Your task to perform on an android device: Empty the shopping cart on target. Search for "bose soundsport free" on target, select the first entry, add it to the cart, then select checkout. Image 0: 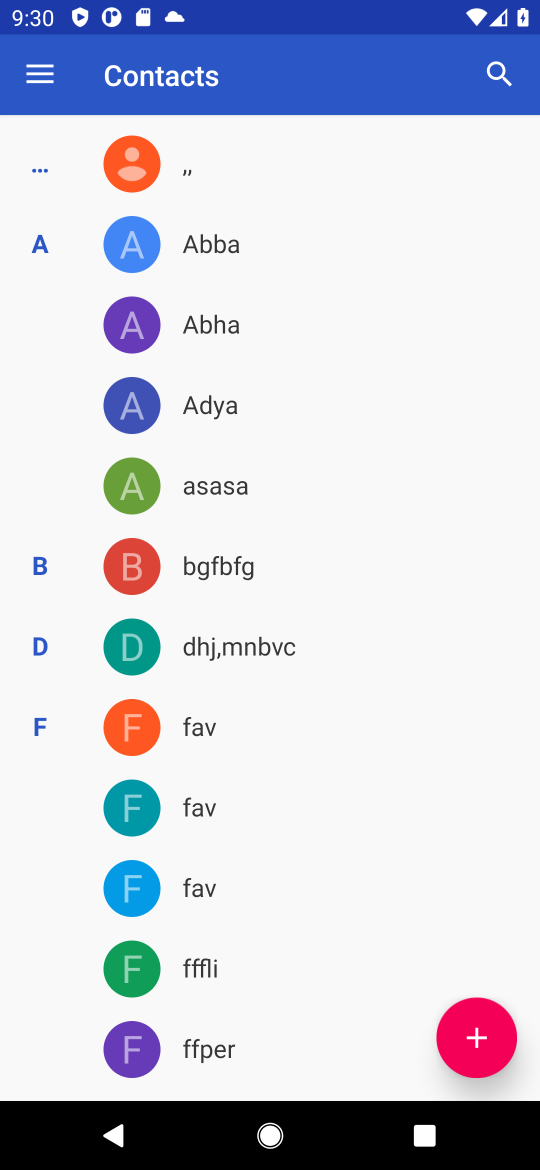
Step 0: press home button
Your task to perform on an android device: Empty the shopping cart on target. Search for "bose soundsport free" on target, select the first entry, add it to the cart, then select checkout. Image 1: 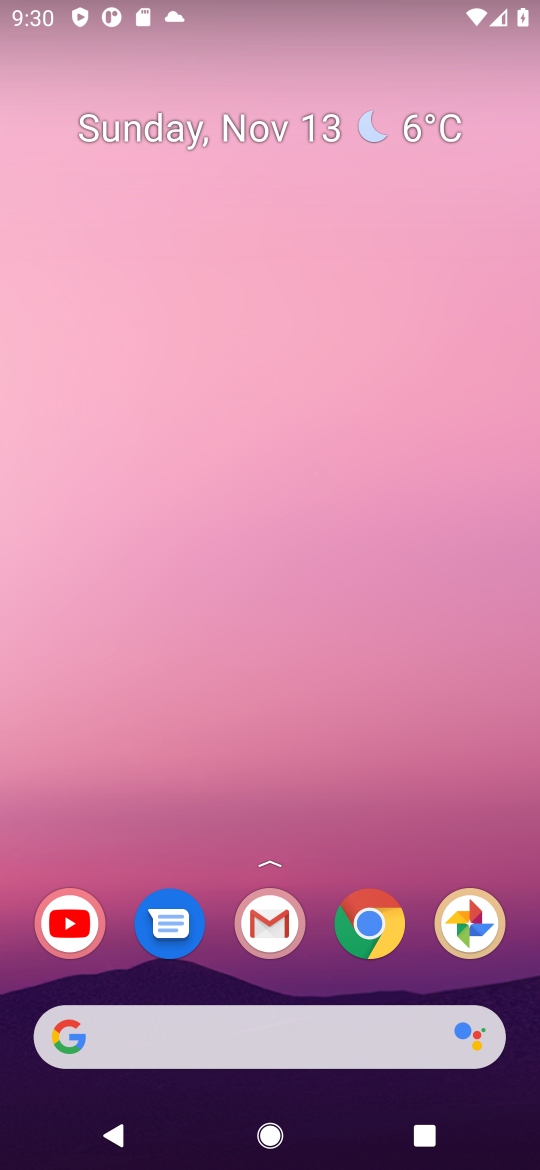
Step 1: click (392, 923)
Your task to perform on an android device: Empty the shopping cart on target. Search for "bose soundsport free" on target, select the first entry, add it to the cart, then select checkout. Image 2: 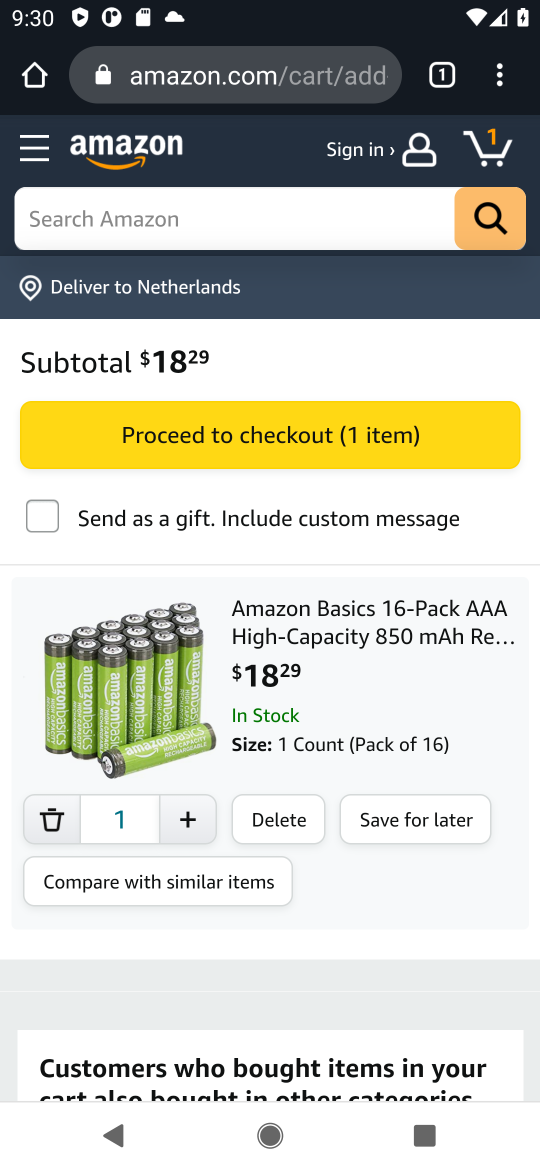
Step 2: click (345, 75)
Your task to perform on an android device: Empty the shopping cart on target. Search for "bose soundsport free" on target, select the first entry, add it to the cart, then select checkout. Image 3: 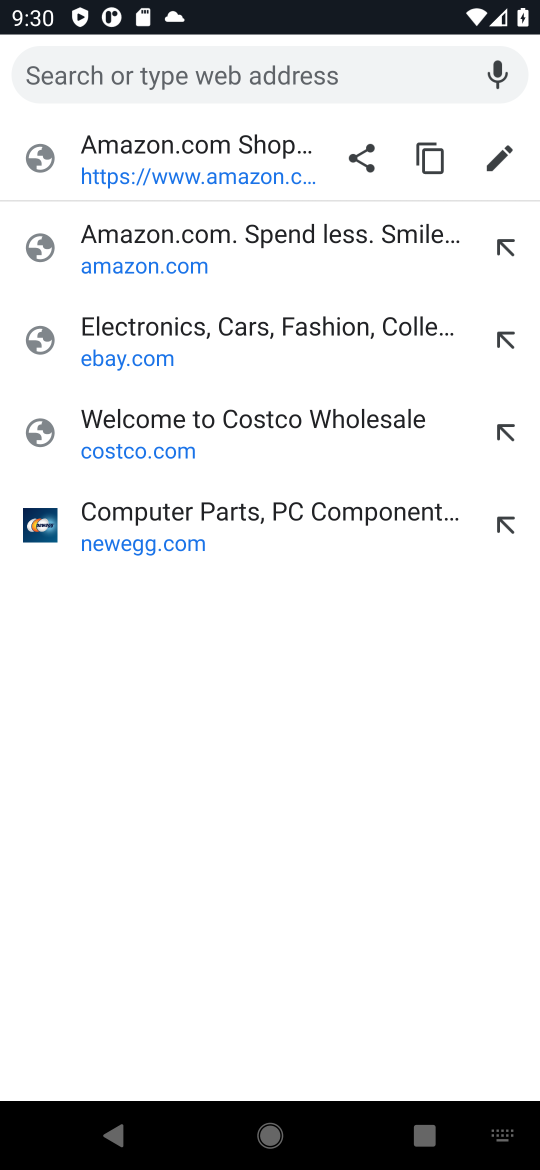
Step 3: type "target"
Your task to perform on an android device: Empty the shopping cart on target. Search for "bose soundsport free" on target, select the first entry, add it to the cart, then select checkout. Image 4: 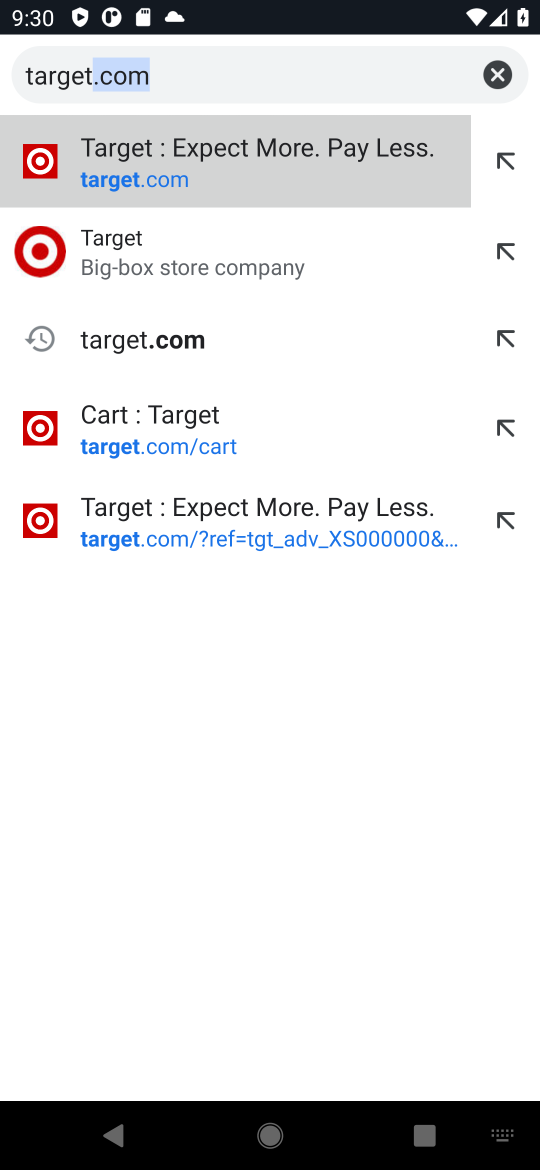
Step 4: press enter
Your task to perform on an android device: Empty the shopping cart on target. Search for "bose soundsport free" on target, select the first entry, add it to the cart, then select checkout. Image 5: 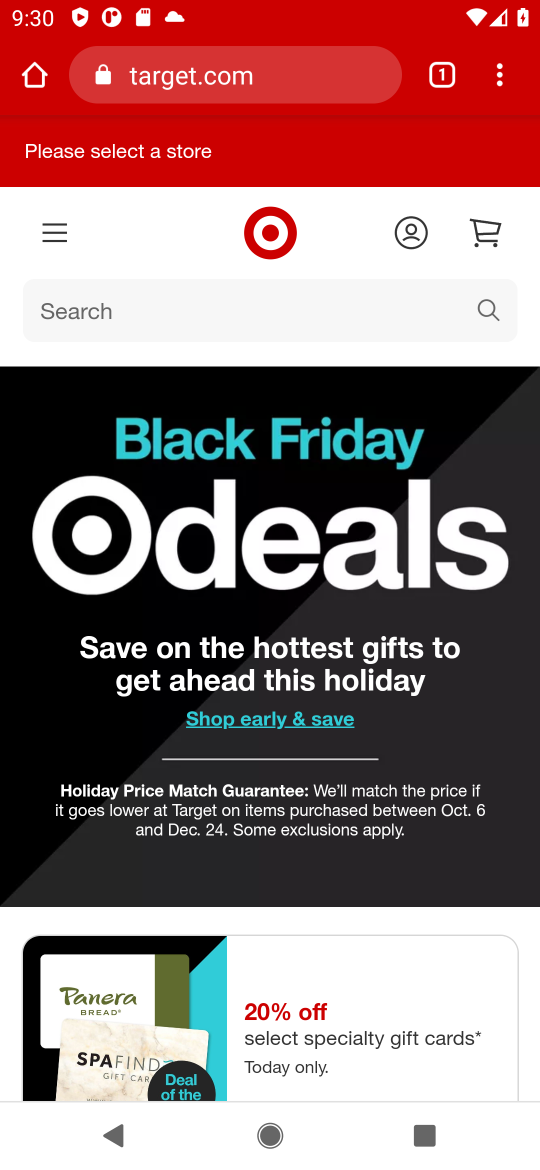
Step 5: click (494, 308)
Your task to perform on an android device: Empty the shopping cart on target. Search for "bose soundsport free" on target, select the first entry, add it to the cart, then select checkout. Image 6: 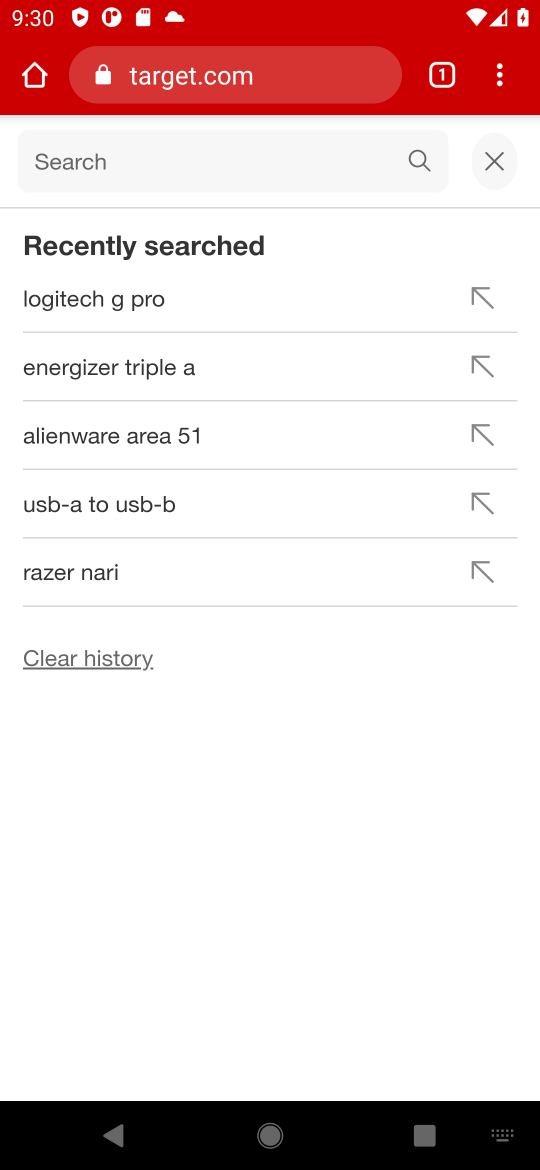
Step 6: click (495, 162)
Your task to perform on an android device: Empty the shopping cart on target. Search for "bose soundsport free" on target, select the first entry, add it to the cart, then select checkout. Image 7: 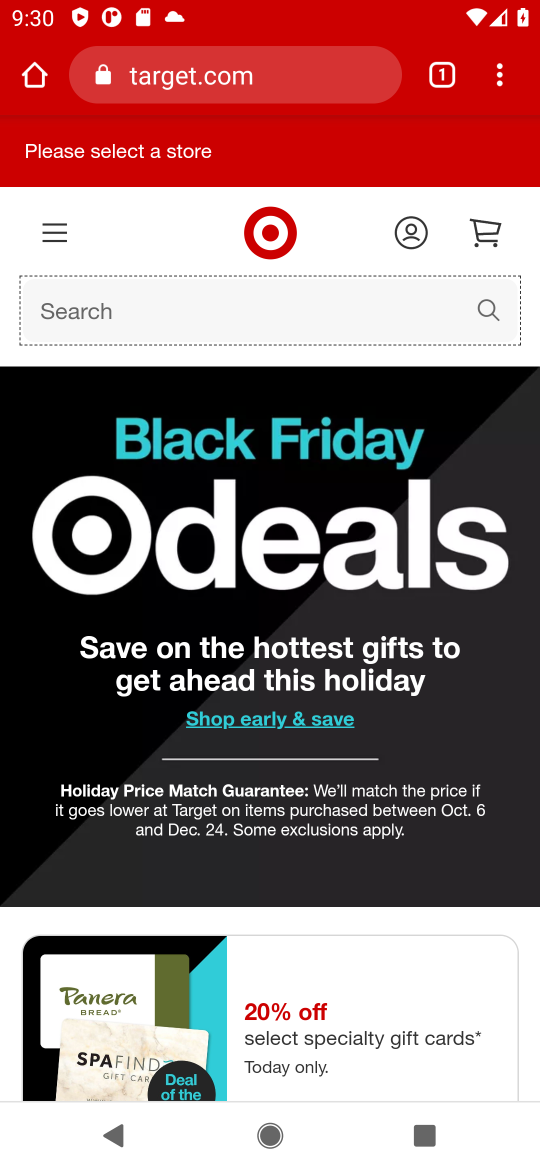
Step 7: click (489, 232)
Your task to perform on an android device: Empty the shopping cart on target. Search for "bose soundsport free" on target, select the first entry, add it to the cart, then select checkout. Image 8: 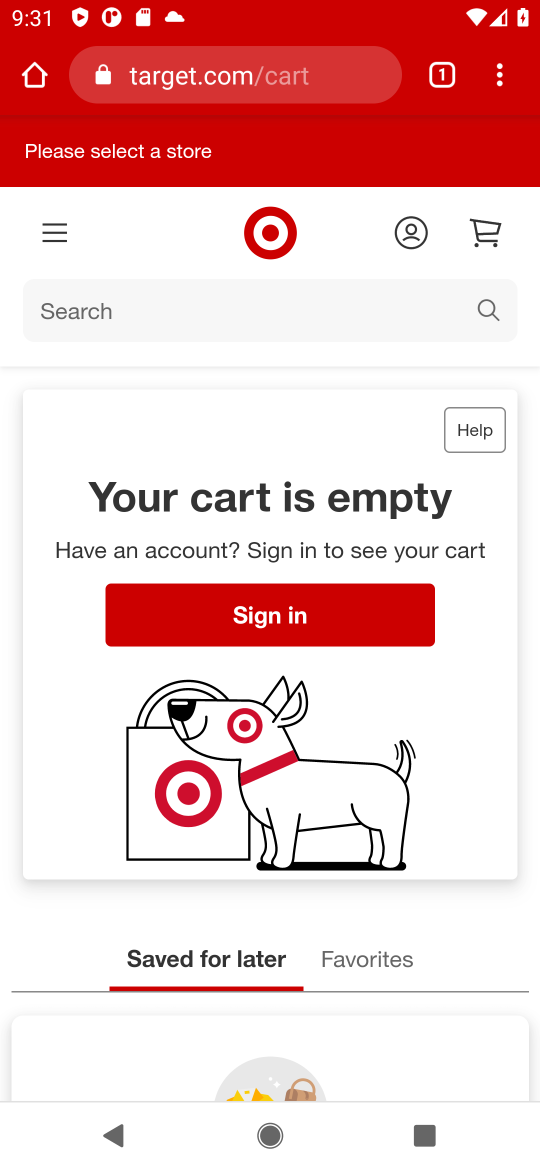
Step 8: click (487, 304)
Your task to perform on an android device: Empty the shopping cart on target. Search for "bose soundsport free" on target, select the first entry, add it to the cart, then select checkout. Image 9: 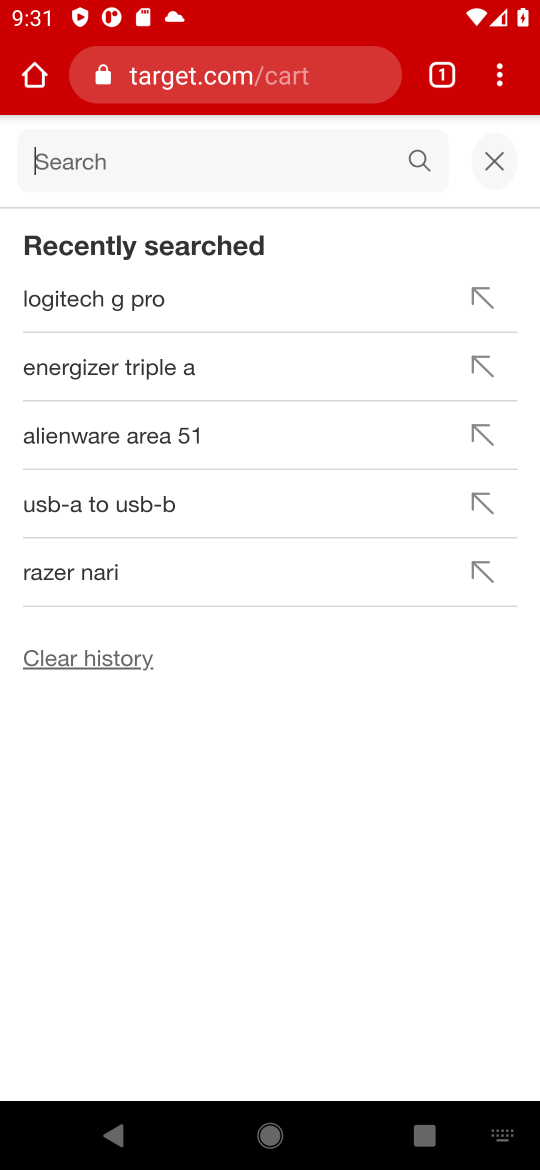
Step 9: type "bose soundsport free"
Your task to perform on an android device: Empty the shopping cart on target. Search for "bose soundsport free" on target, select the first entry, add it to the cart, then select checkout. Image 10: 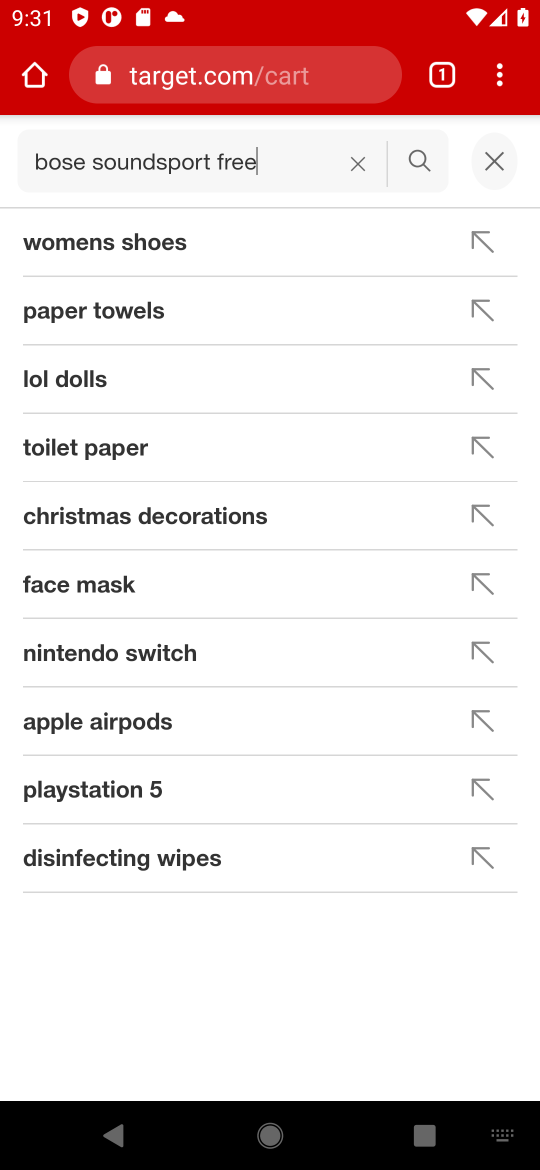
Step 10: press enter
Your task to perform on an android device: Empty the shopping cart on target. Search for "bose soundsport free" on target, select the first entry, add it to the cart, then select checkout. Image 11: 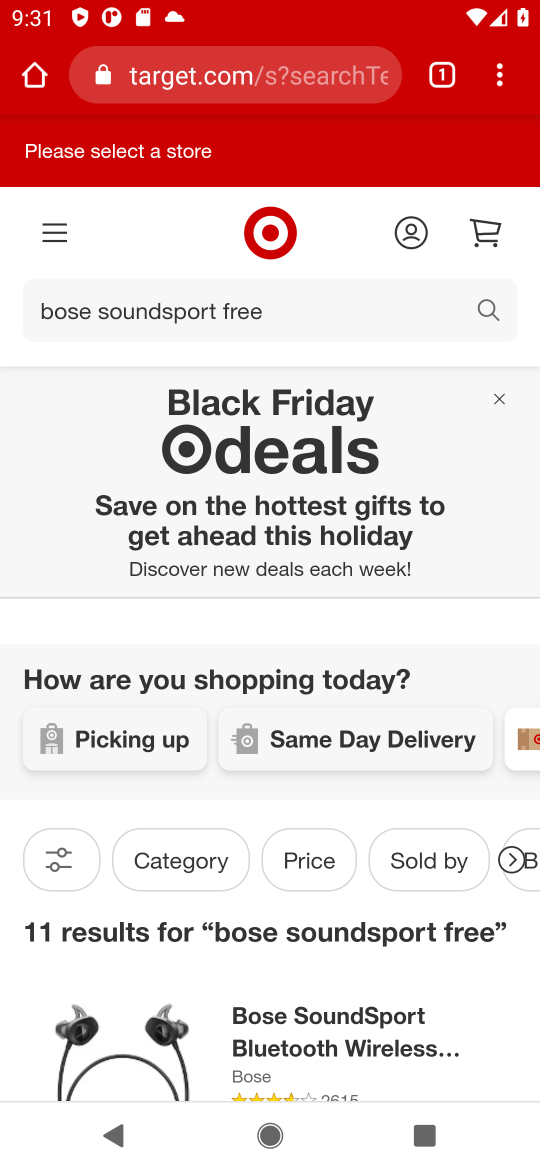
Step 11: task complete